Your task to perform on an android device: change the clock display to show seconds Image 0: 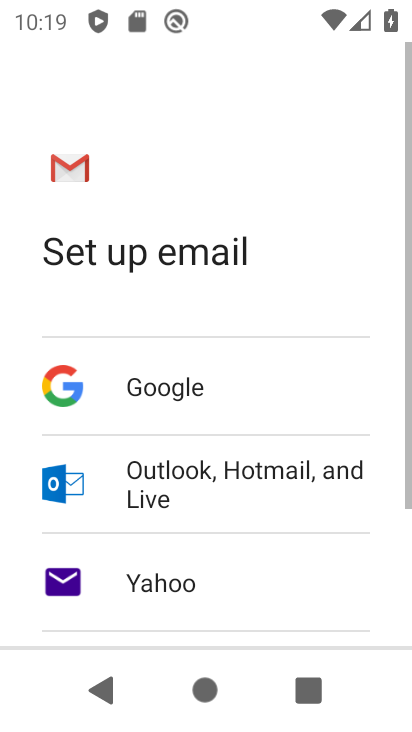
Step 0: press home button
Your task to perform on an android device: change the clock display to show seconds Image 1: 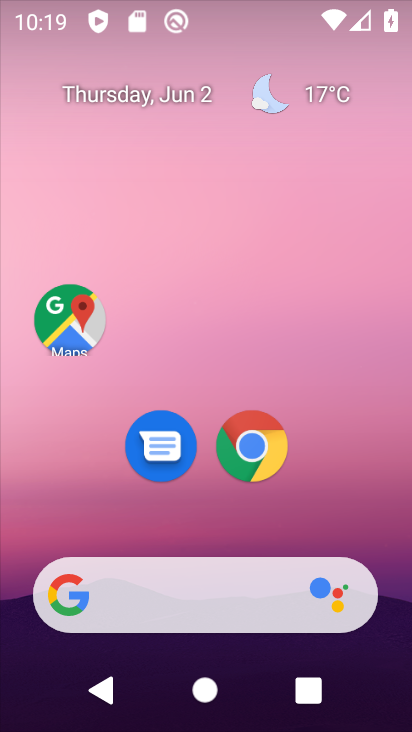
Step 1: drag from (311, 508) to (257, 27)
Your task to perform on an android device: change the clock display to show seconds Image 2: 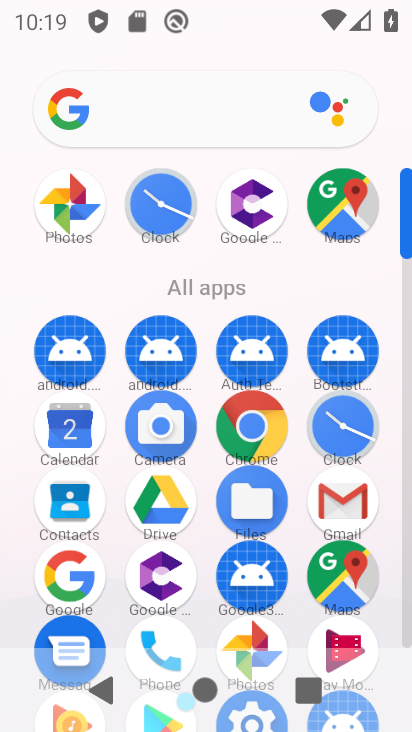
Step 2: click (345, 417)
Your task to perform on an android device: change the clock display to show seconds Image 3: 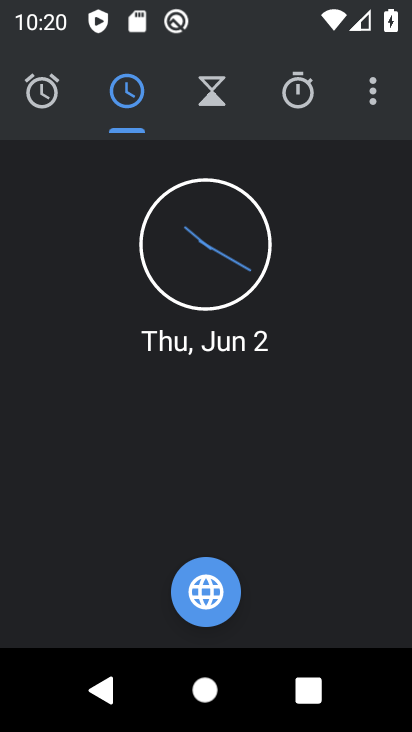
Step 3: click (362, 87)
Your task to perform on an android device: change the clock display to show seconds Image 4: 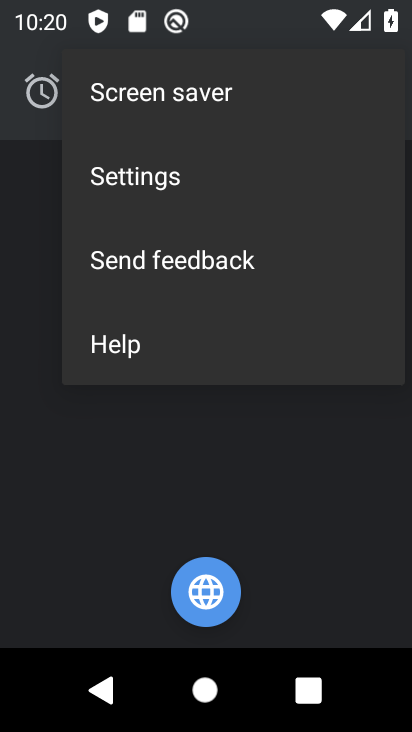
Step 4: click (184, 175)
Your task to perform on an android device: change the clock display to show seconds Image 5: 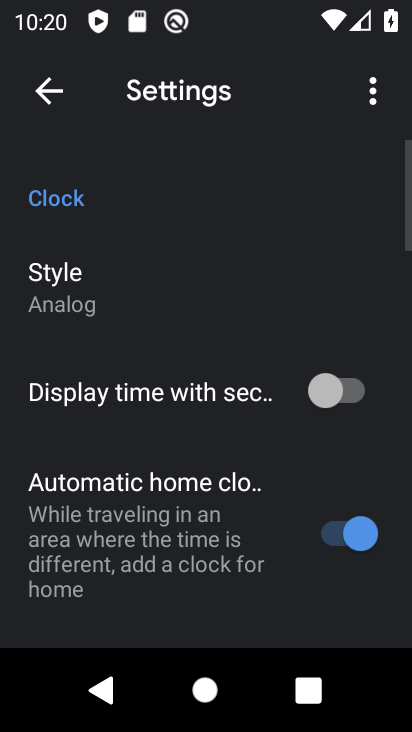
Step 5: click (217, 399)
Your task to perform on an android device: change the clock display to show seconds Image 6: 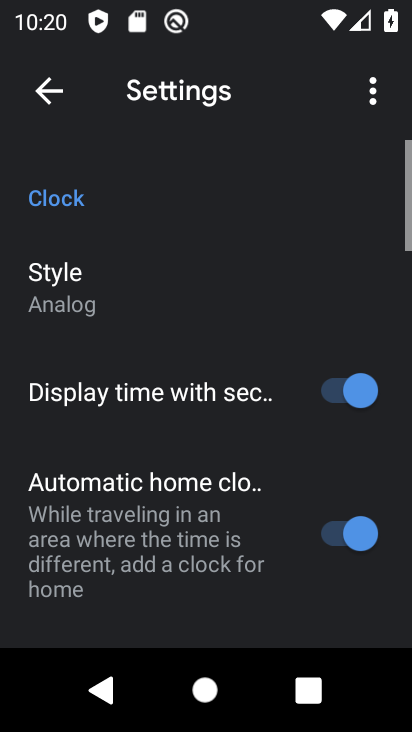
Step 6: task complete